Your task to perform on an android device: turn on improve location accuracy Image 0: 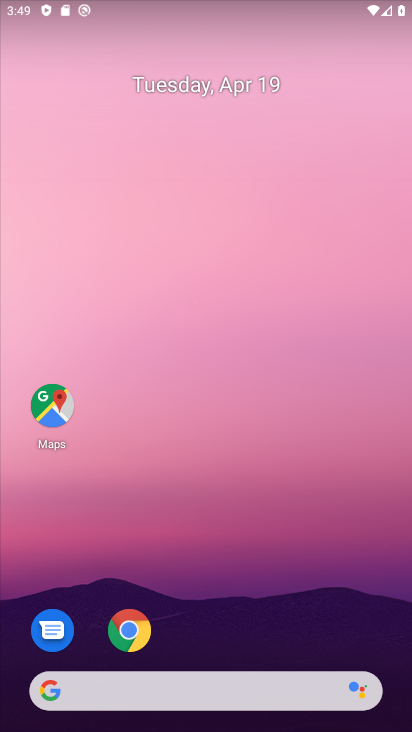
Step 0: drag from (376, 586) to (300, 102)
Your task to perform on an android device: turn on improve location accuracy Image 1: 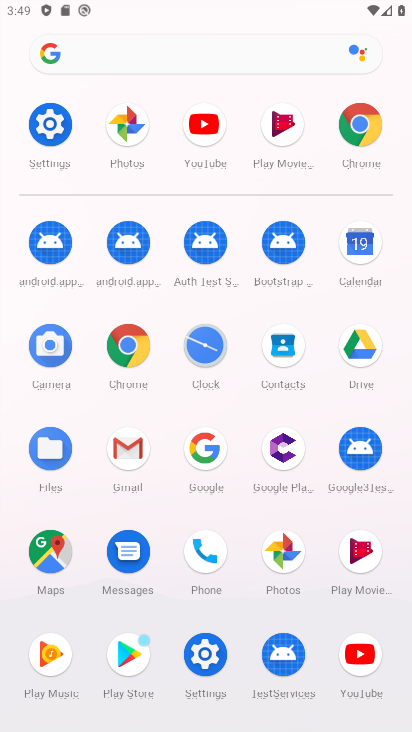
Step 1: click (52, 120)
Your task to perform on an android device: turn on improve location accuracy Image 2: 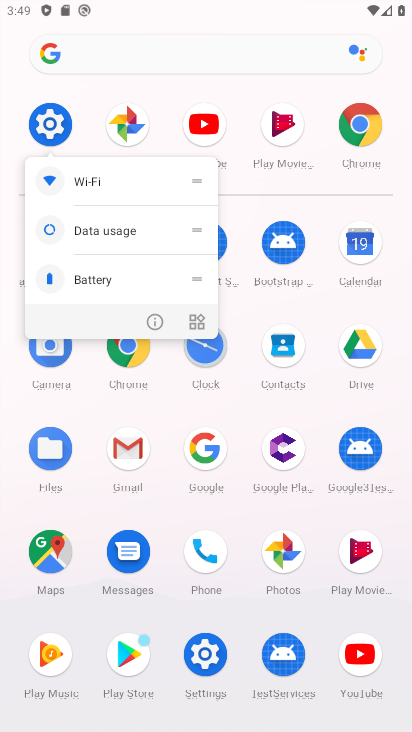
Step 2: click (52, 120)
Your task to perform on an android device: turn on improve location accuracy Image 3: 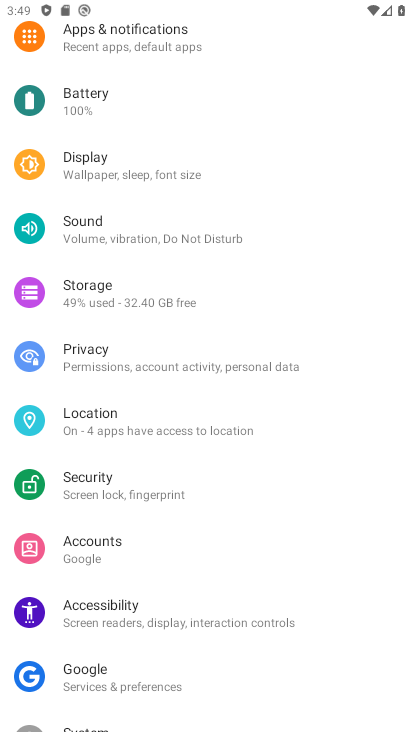
Step 3: drag from (165, 564) to (153, 238)
Your task to perform on an android device: turn on improve location accuracy Image 4: 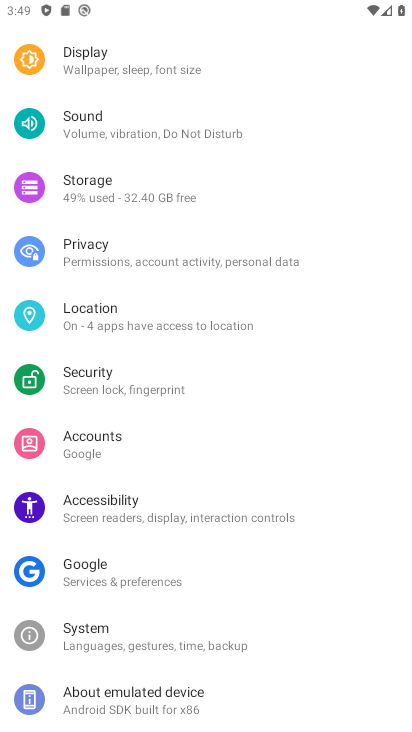
Step 4: drag from (197, 260) to (198, 583)
Your task to perform on an android device: turn on improve location accuracy Image 5: 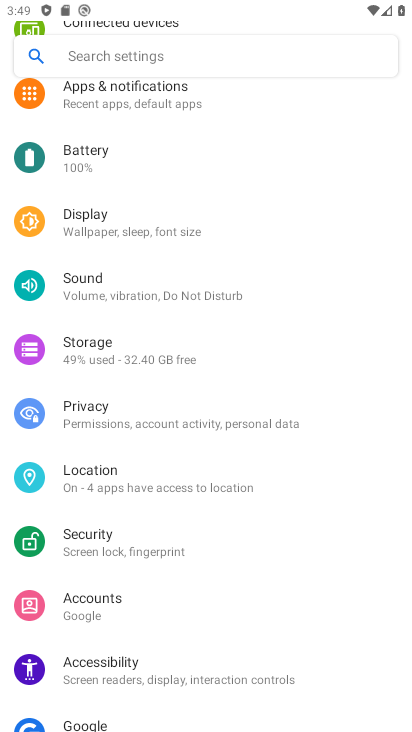
Step 5: drag from (234, 214) to (253, 544)
Your task to perform on an android device: turn on improve location accuracy Image 6: 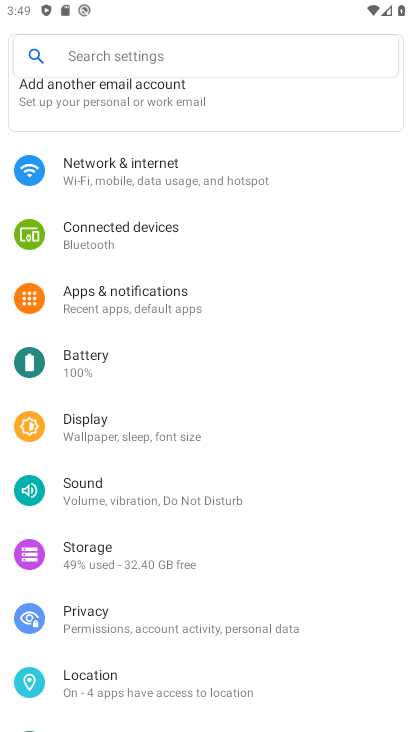
Step 6: drag from (176, 249) to (182, 571)
Your task to perform on an android device: turn on improve location accuracy Image 7: 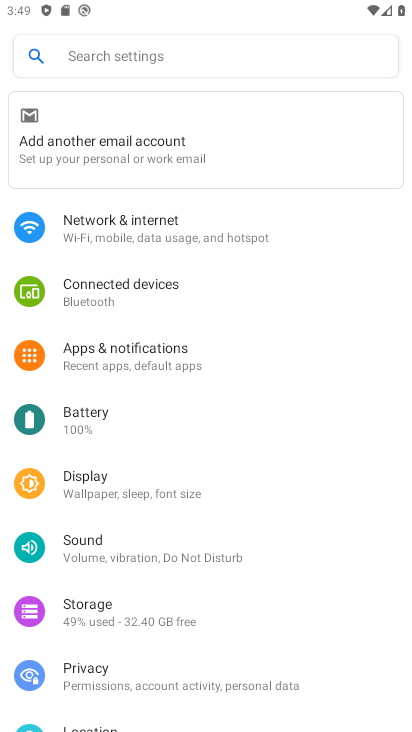
Step 7: drag from (191, 255) to (204, 509)
Your task to perform on an android device: turn on improve location accuracy Image 8: 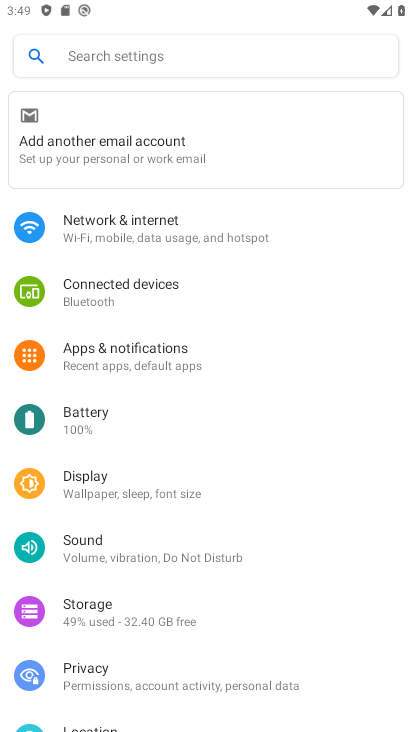
Step 8: drag from (190, 340) to (201, 594)
Your task to perform on an android device: turn on improve location accuracy Image 9: 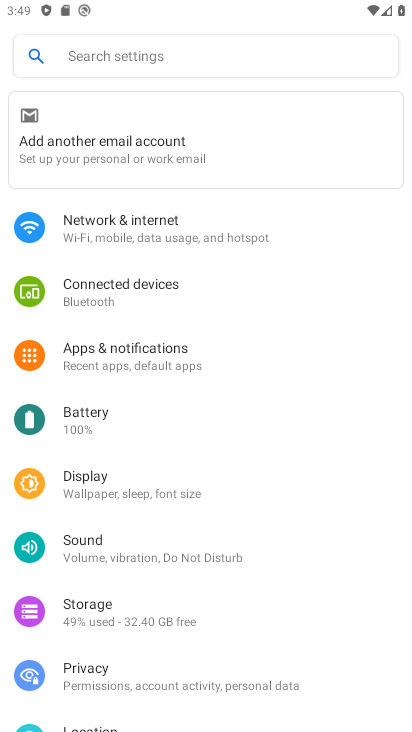
Step 9: drag from (219, 593) to (310, 190)
Your task to perform on an android device: turn on improve location accuracy Image 10: 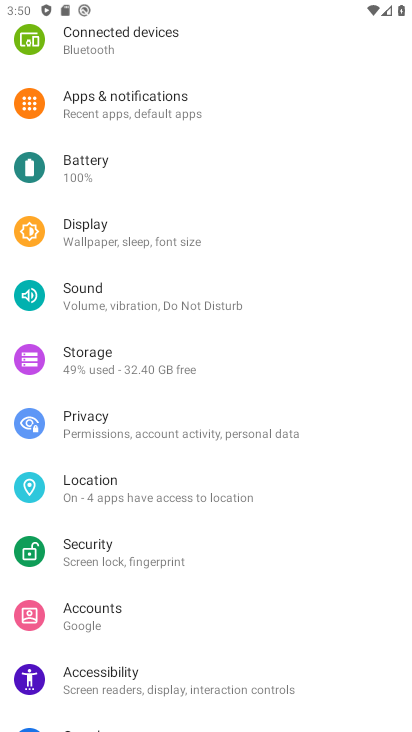
Step 10: drag from (245, 500) to (263, 195)
Your task to perform on an android device: turn on improve location accuracy Image 11: 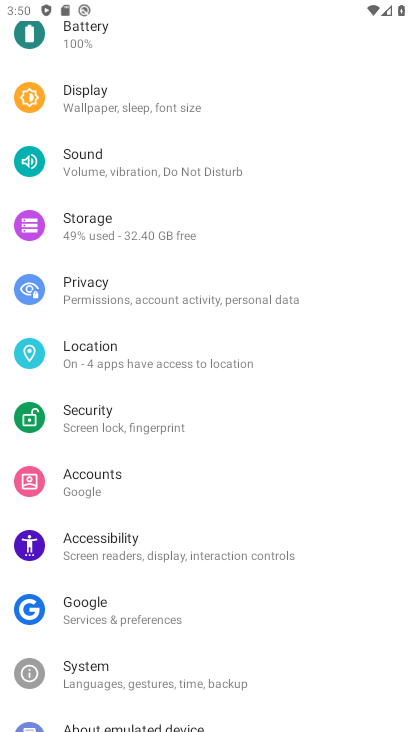
Step 11: click (152, 348)
Your task to perform on an android device: turn on improve location accuracy Image 12: 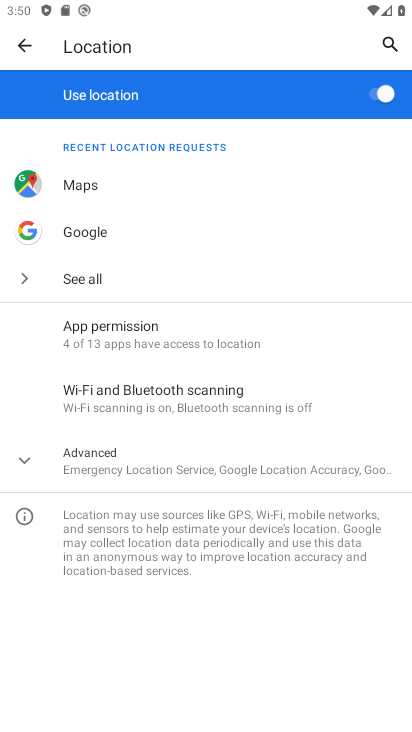
Step 12: click (141, 468)
Your task to perform on an android device: turn on improve location accuracy Image 13: 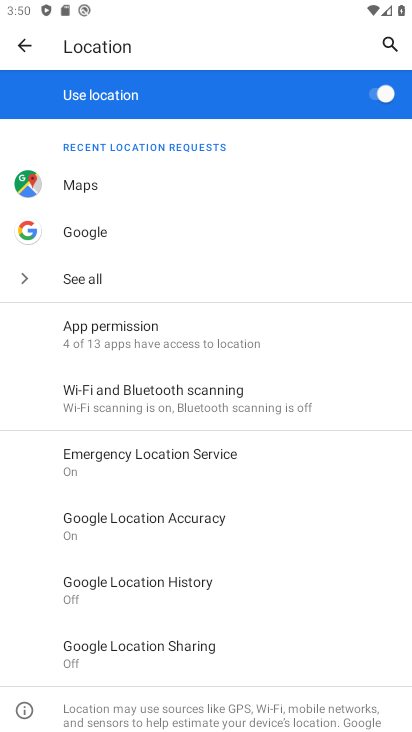
Step 13: click (219, 527)
Your task to perform on an android device: turn on improve location accuracy Image 14: 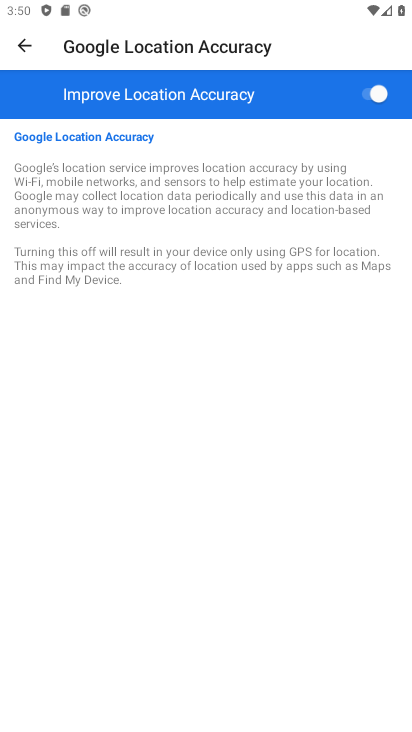
Step 14: click (381, 90)
Your task to perform on an android device: turn on improve location accuracy Image 15: 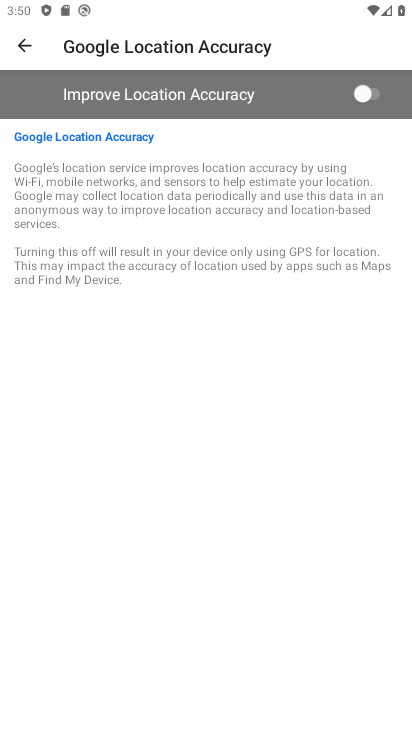
Step 15: task complete